Your task to perform on an android device: search for starred emails in the gmail app Image 0: 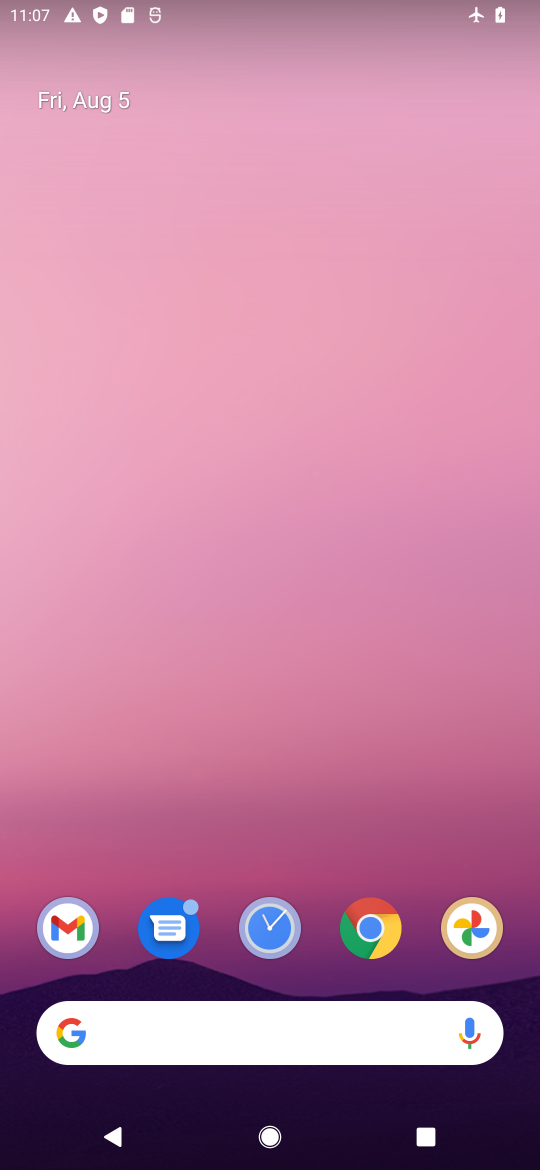
Step 0: drag from (278, 980) to (488, 28)
Your task to perform on an android device: search for starred emails in the gmail app Image 1: 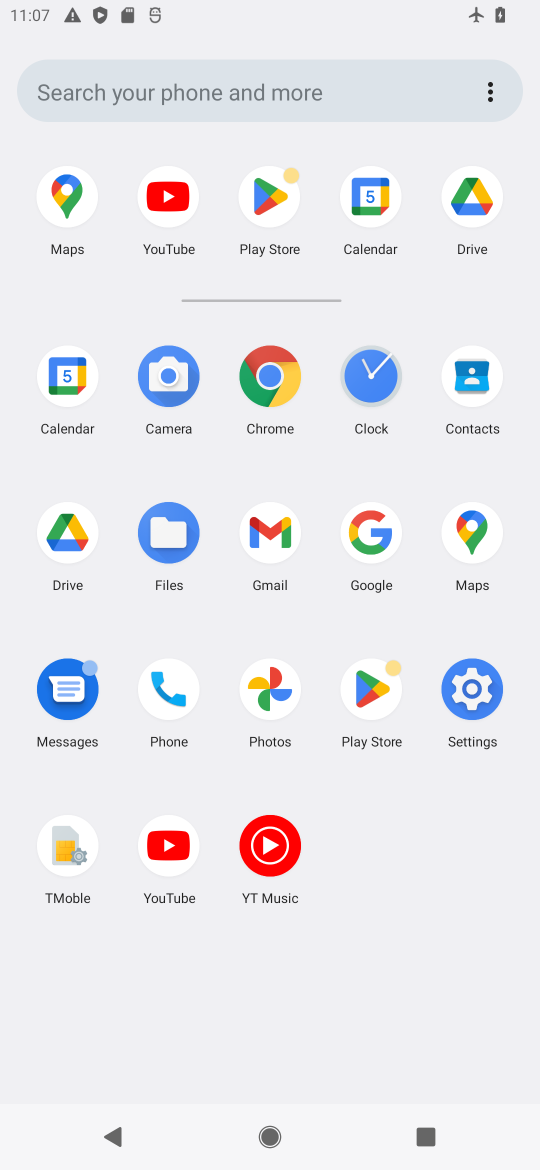
Step 1: click (271, 539)
Your task to perform on an android device: search for starred emails in the gmail app Image 2: 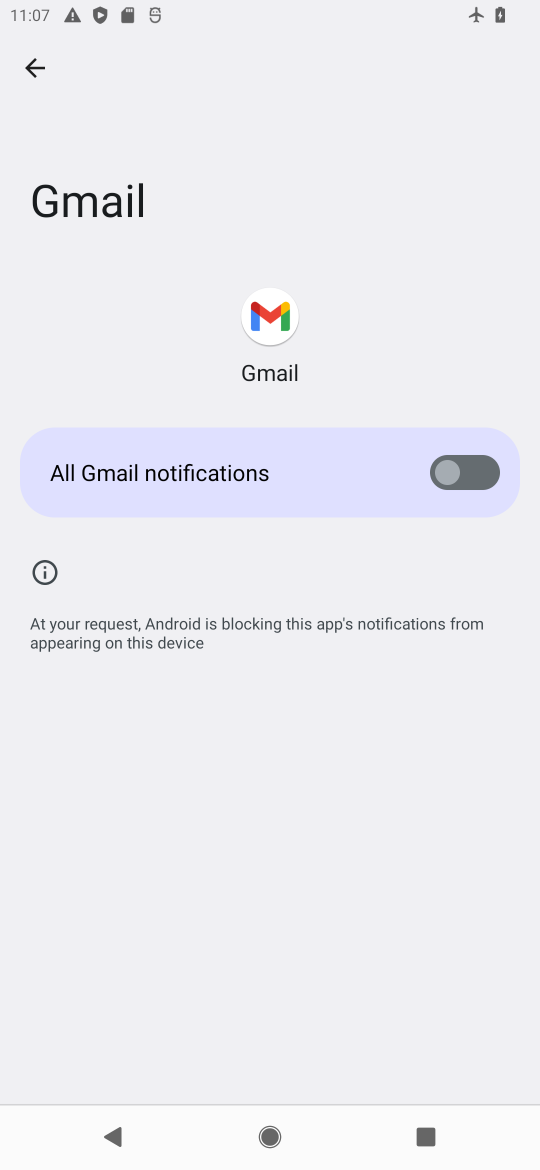
Step 2: click (38, 57)
Your task to perform on an android device: search for starred emails in the gmail app Image 3: 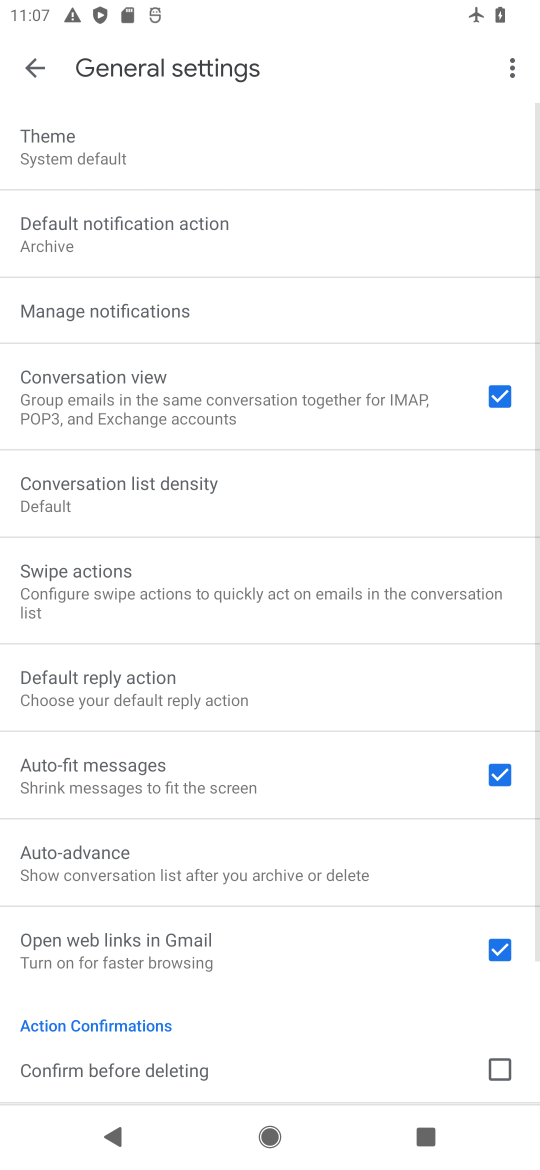
Step 3: click (26, 71)
Your task to perform on an android device: search for starred emails in the gmail app Image 4: 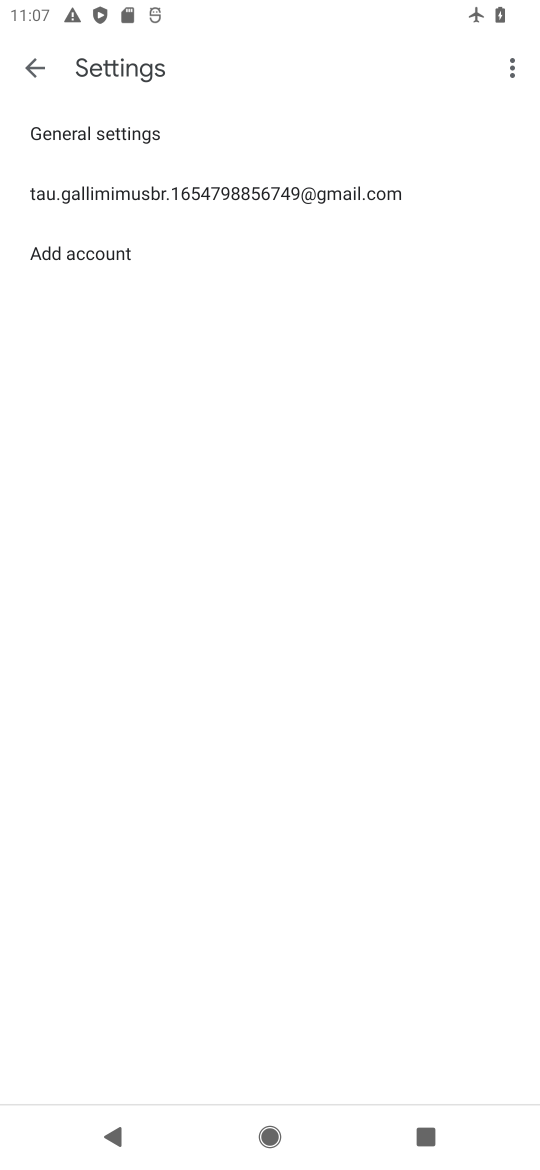
Step 4: click (26, 71)
Your task to perform on an android device: search for starred emails in the gmail app Image 5: 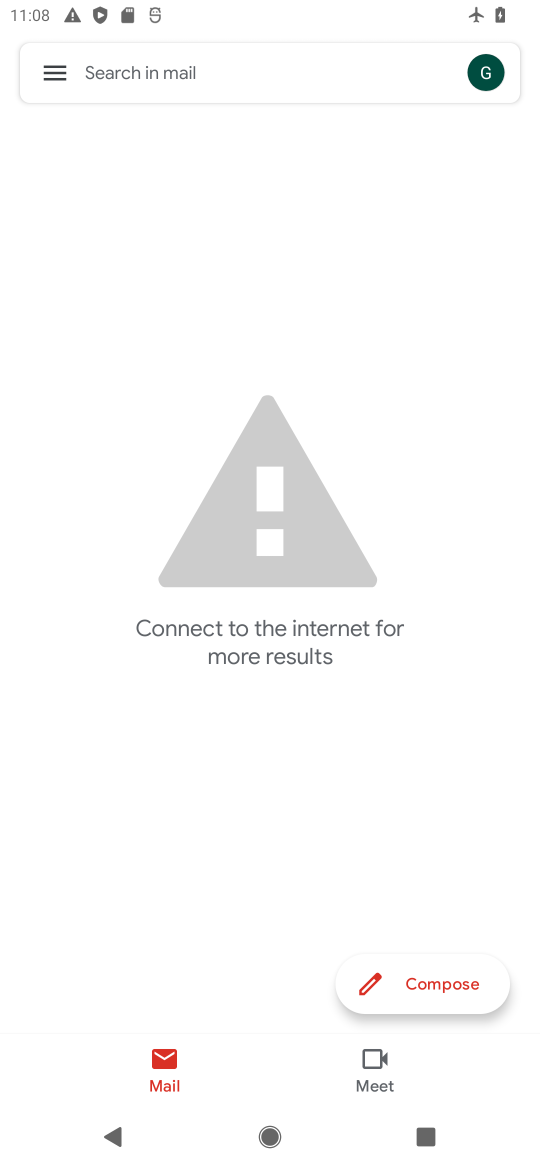
Step 5: click (46, 69)
Your task to perform on an android device: search for starred emails in the gmail app Image 6: 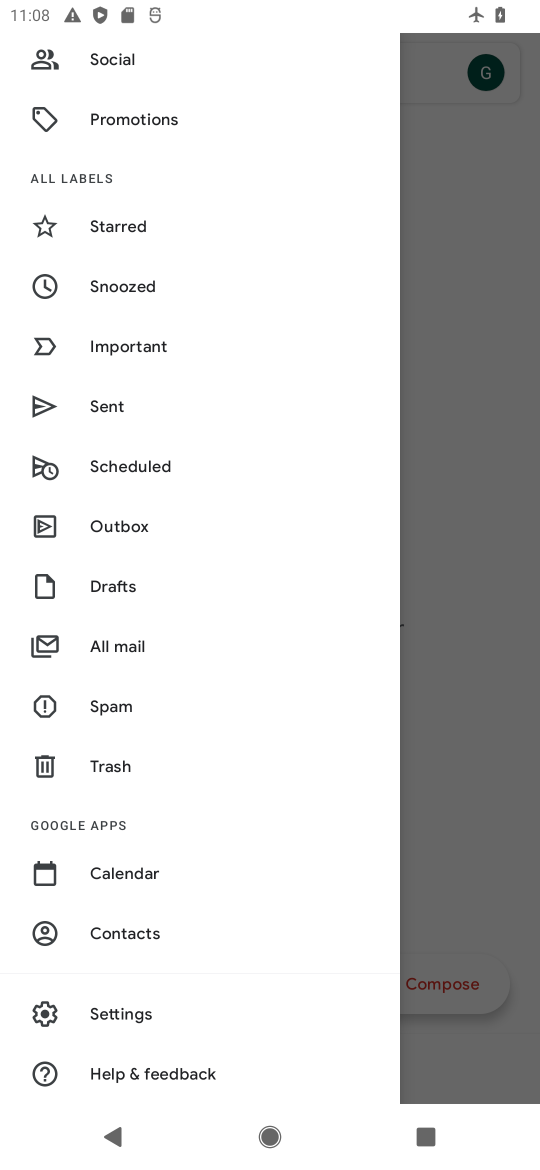
Step 6: click (114, 233)
Your task to perform on an android device: search for starred emails in the gmail app Image 7: 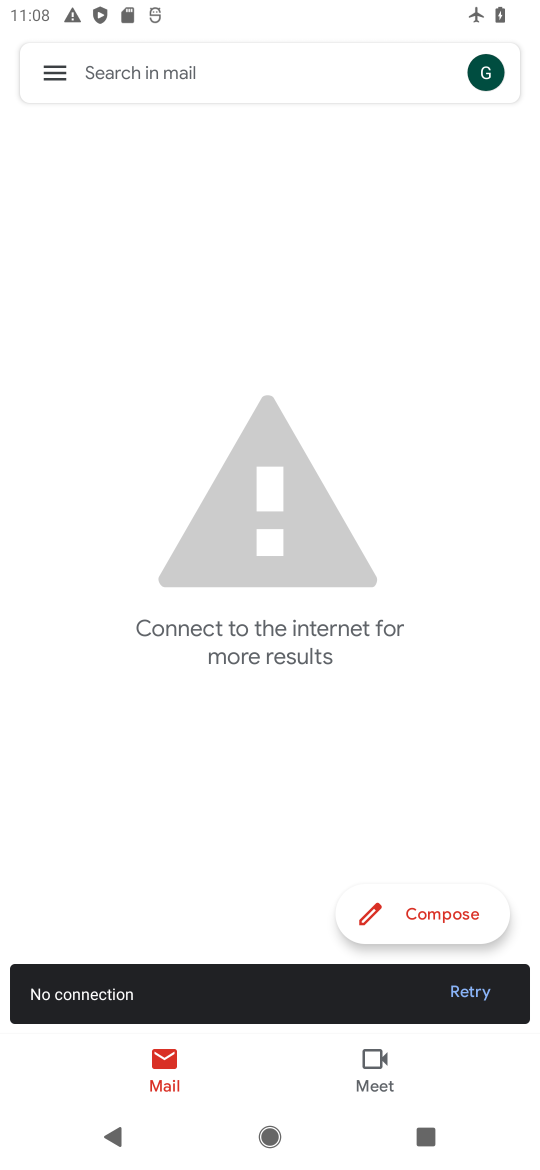
Step 7: task complete